Your task to perform on an android device: Open network settings Image 0: 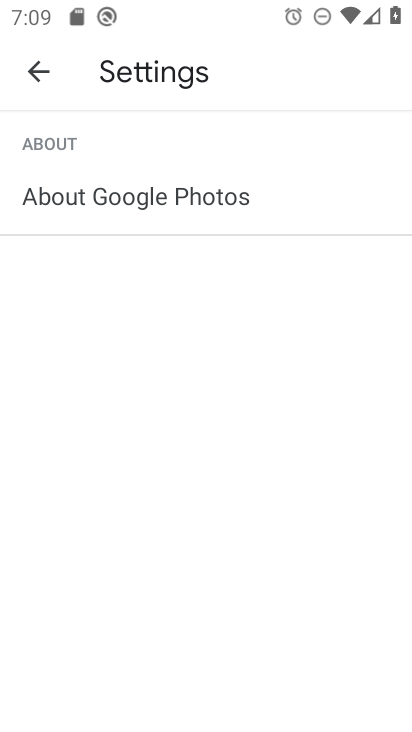
Step 0: press home button
Your task to perform on an android device: Open network settings Image 1: 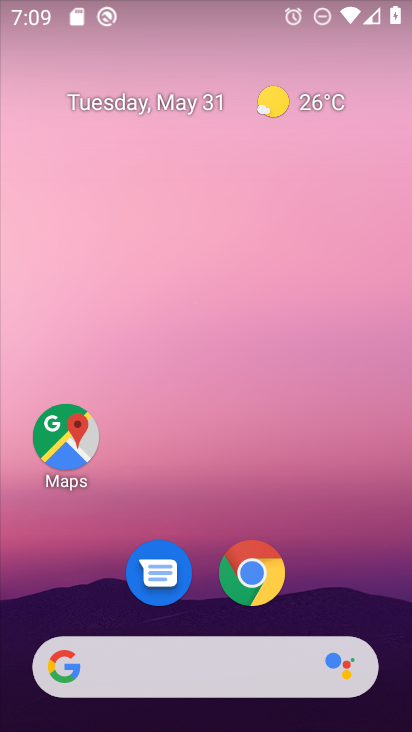
Step 1: drag from (395, 649) to (301, 111)
Your task to perform on an android device: Open network settings Image 2: 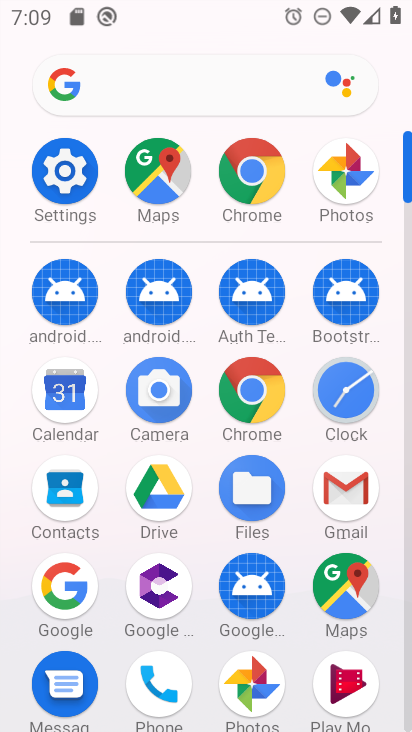
Step 2: click (54, 187)
Your task to perform on an android device: Open network settings Image 3: 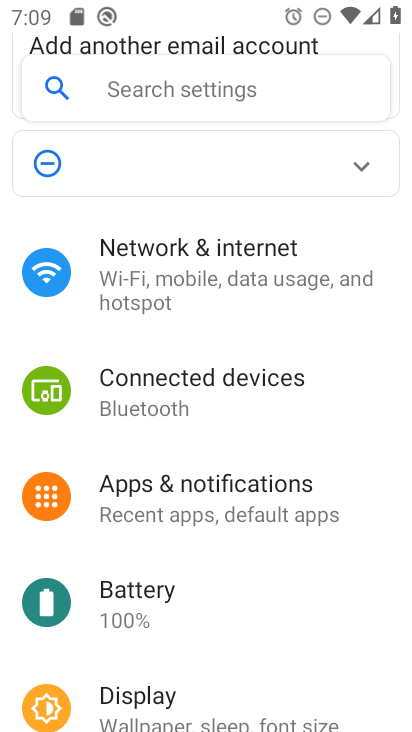
Step 3: click (231, 295)
Your task to perform on an android device: Open network settings Image 4: 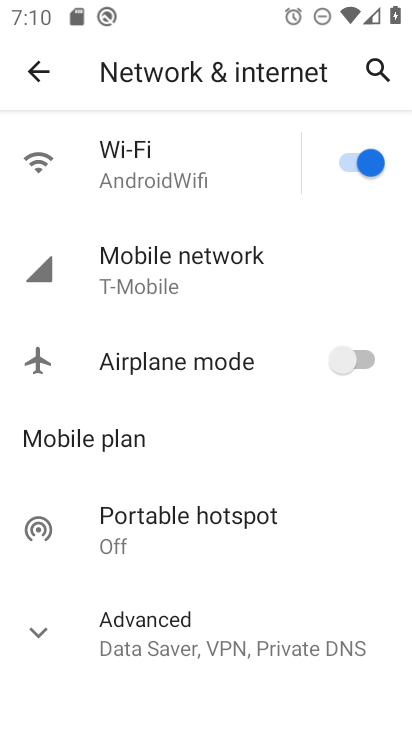
Step 4: task complete